Your task to perform on an android device: toggle improve location accuracy Image 0: 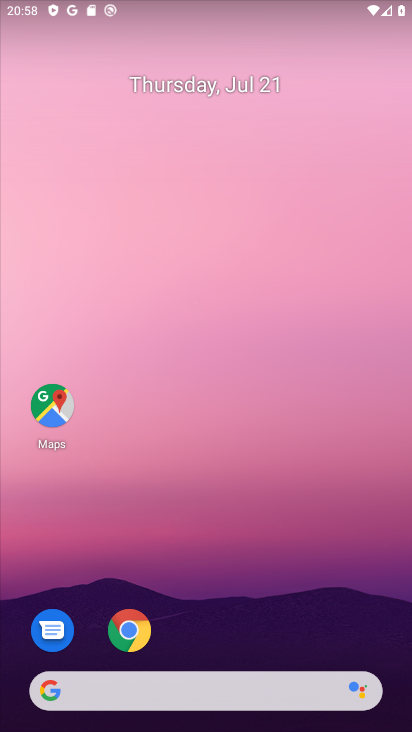
Step 0: drag from (290, 600) to (244, 39)
Your task to perform on an android device: toggle improve location accuracy Image 1: 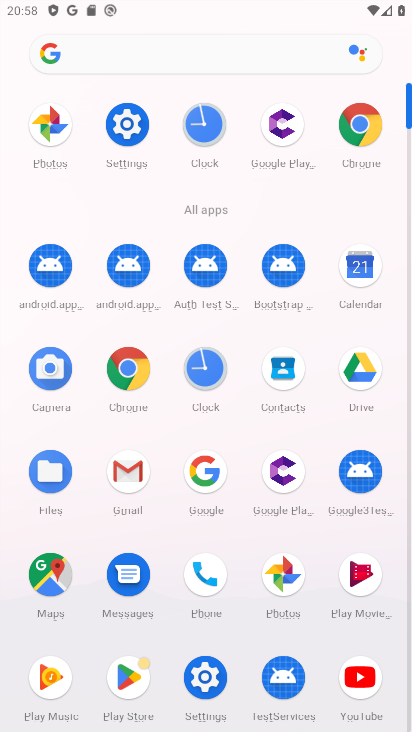
Step 1: click (131, 113)
Your task to perform on an android device: toggle improve location accuracy Image 2: 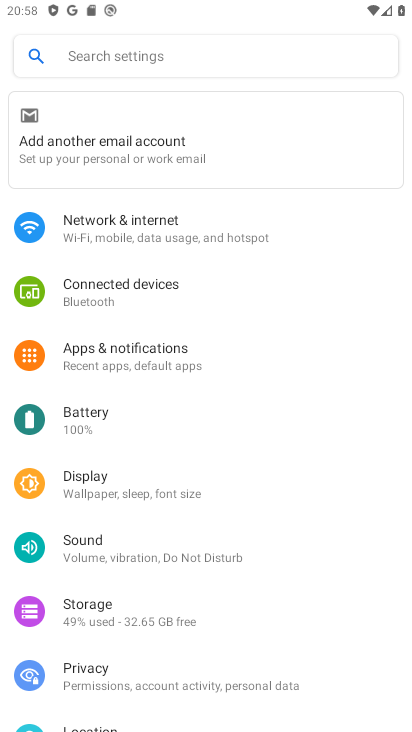
Step 2: drag from (259, 601) to (314, 340)
Your task to perform on an android device: toggle improve location accuracy Image 3: 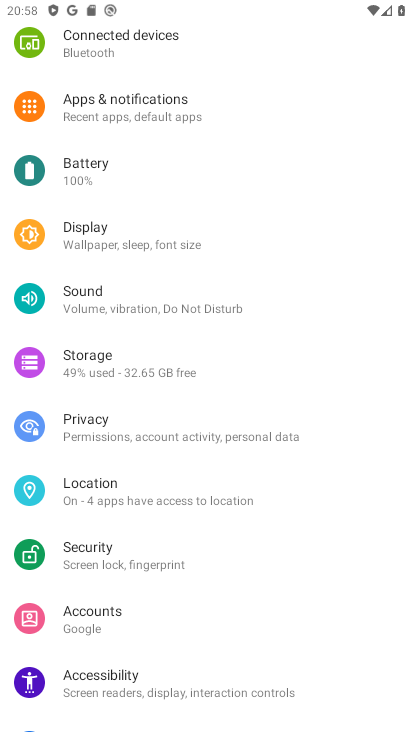
Step 3: click (162, 497)
Your task to perform on an android device: toggle improve location accuracy Image 4: 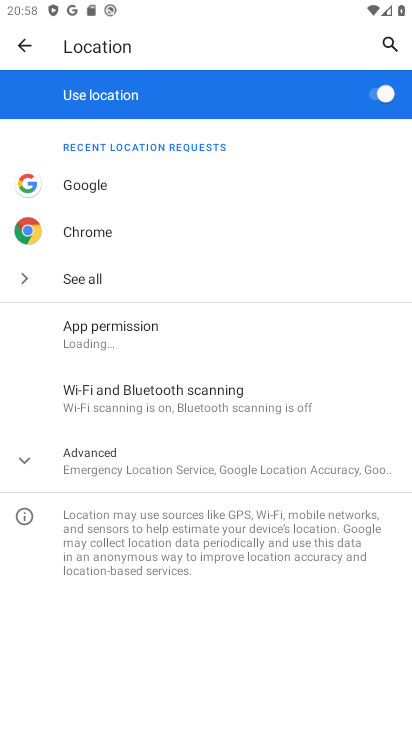
Step 4: click (98, 455)
Your task to perform on an android device: toggle improve location accuracy Image 5: 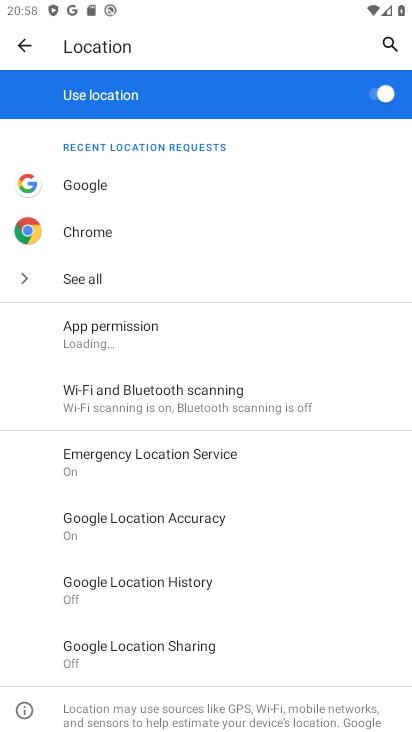
Step 5: click (184, 522)
Your task to perform on an android device: toggle improve location accuracy Image 6: 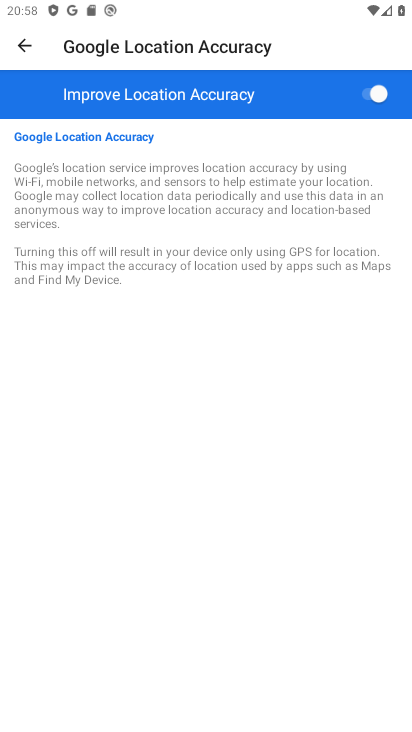
Step 6: click (375, 85)
Your task to perform on an android device: toggle improve location accuracy Image 7: 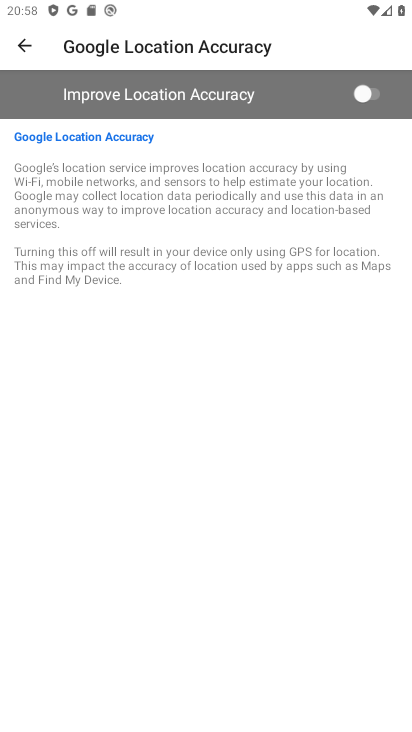
Step 7: task complete